Your task to perform on an android device: add a label to a message in the gmail app Image 0: 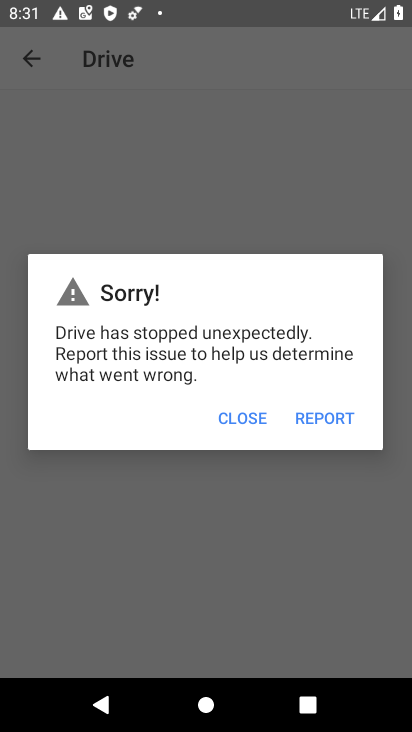
Step 0: drag from (219, 574) to (235, 79)
Your task to perform on an android device: add a label to a message in the gmail app Image 1: 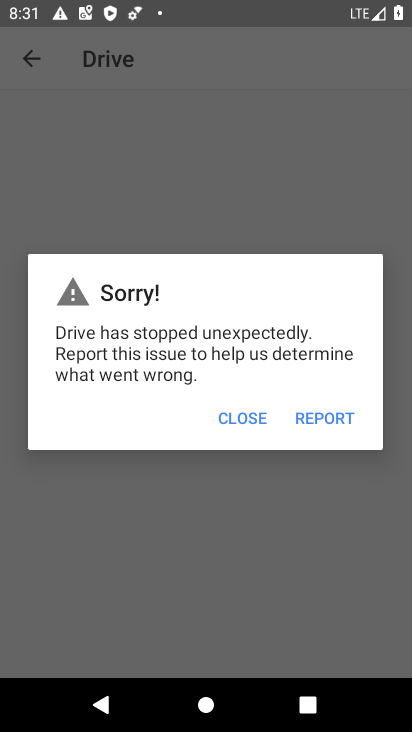
Step 1: press home button
Your task to perform on an android device: add a label to a message in the gmail app Image 2: 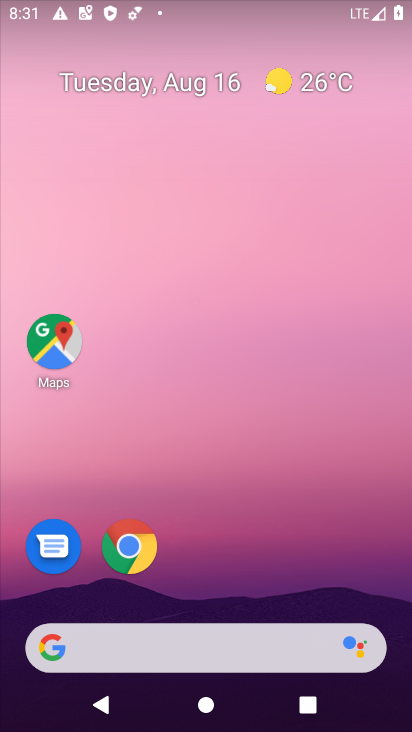
Step 2: drag from (230, 548) to (241, 99)
Your task to perform on an android device: add a label to a message in the gmail app Image 3: 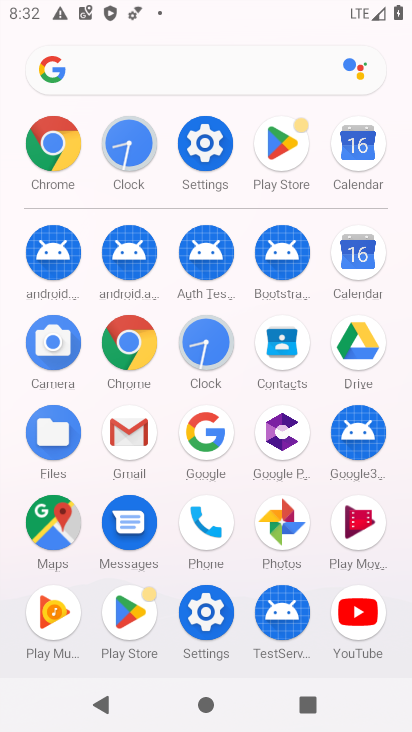
Step 3: click (131, 437)
Your task to perform on an android device: add a label to a message in the gmail app Image 4: 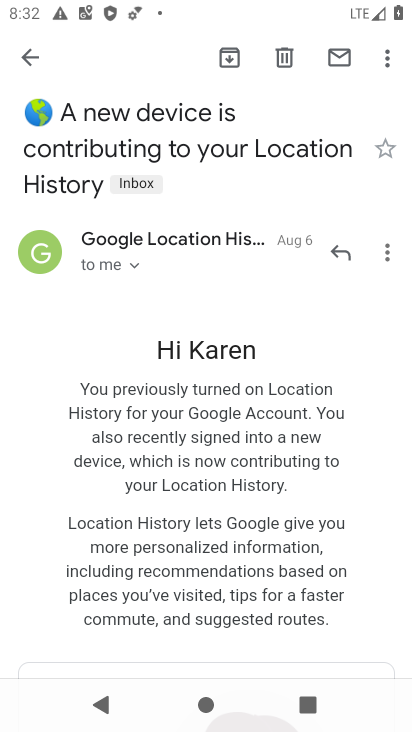
Step 4: click (389, 61)
Your task to perform on an android device: add a label to a message in the gmail app Image 5: 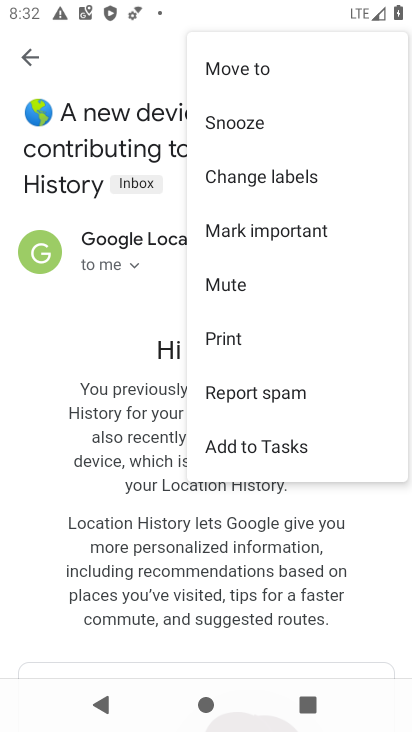
Step 5: click (293, 170)
Your task to perform on an android device: add a label to a message in the gmail app Image 6: 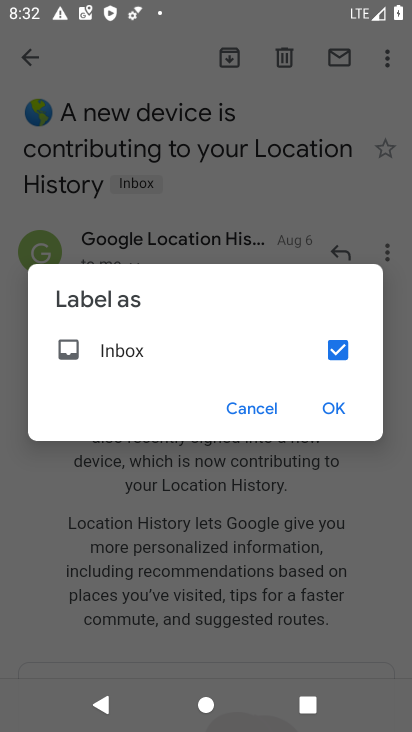
Step 6: click (340, 348)
Your task to perform on an android device: add a label to a message in the gmail app Image 7: 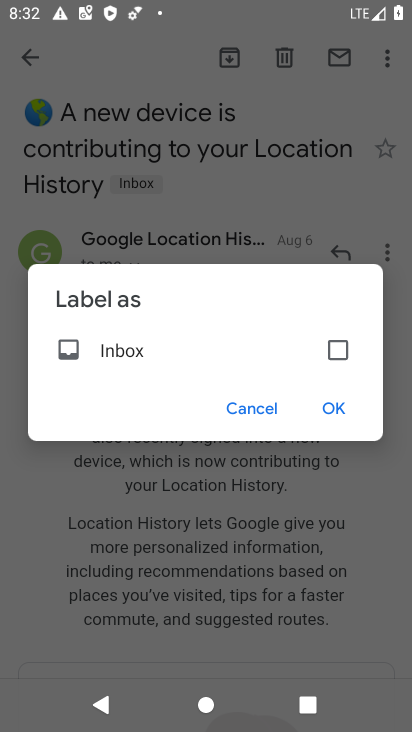
Step 7: click (336, 399)
Your task to perform on an android device: add a label to a message in the gmail app Image 8: 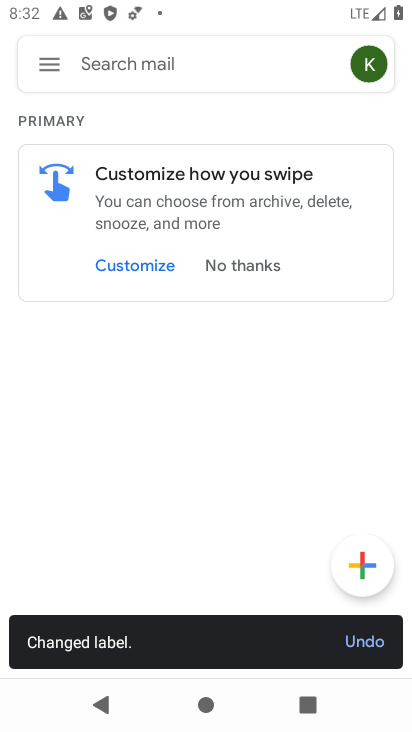
Step 8: task complete